Your task to perform on an android device: Open Youtube and go to the subscriptions tab Image 0: 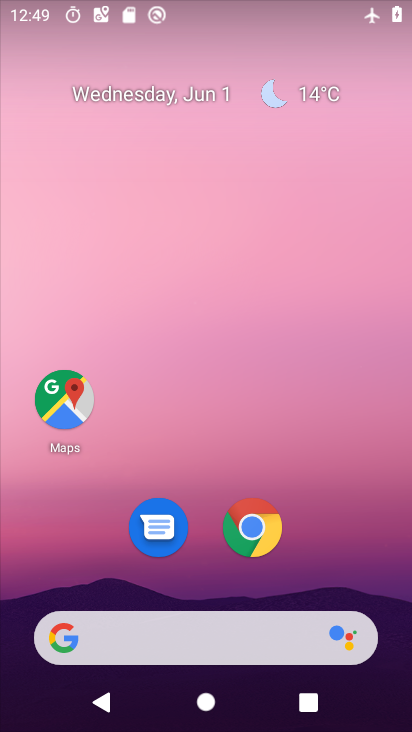
Step 0: drag from (333, 593) to (352, 7)
Your task to perform on an android device: Open Youtube and go to the subscriptions tab Image 1: 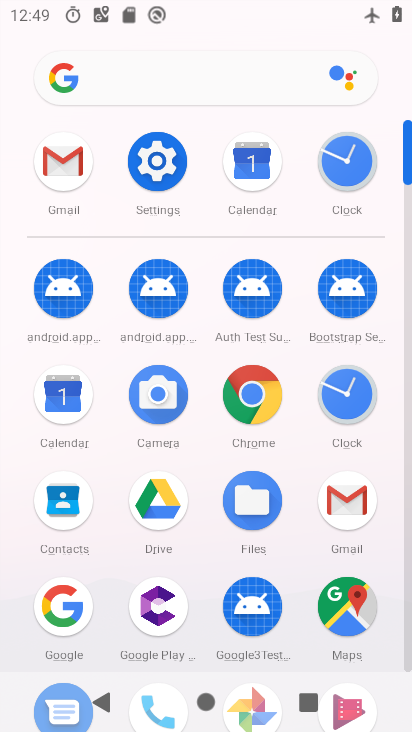
Step 1: click (410, 498)
Your task to perform on an android device: Open Youtube and go to the subscriptions tab Image 2: 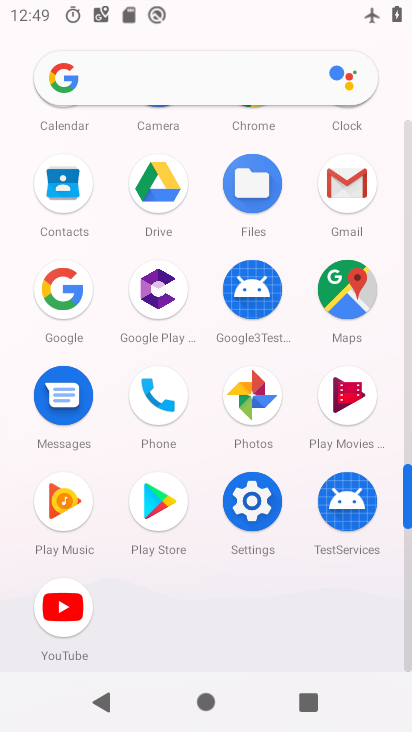
Step 2: click (41, 614)
Your task to perform on an android device: Open Youtube and go to the subscriptions tab Image 3: 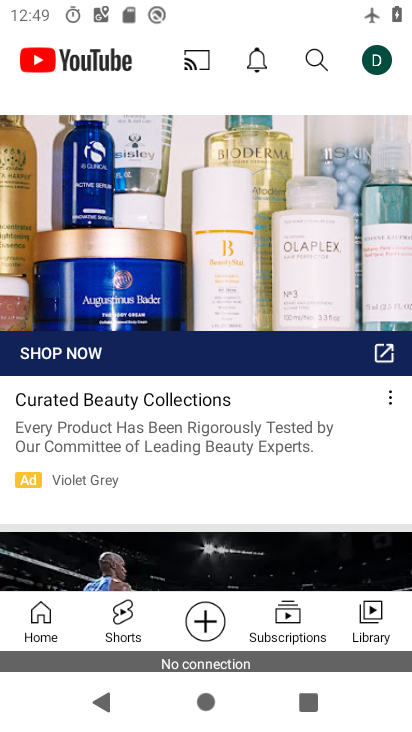
Step 3: click (266, 643)
Your task to perform on an android device: Open Youtube and go to the subscriptions tab Image 4: 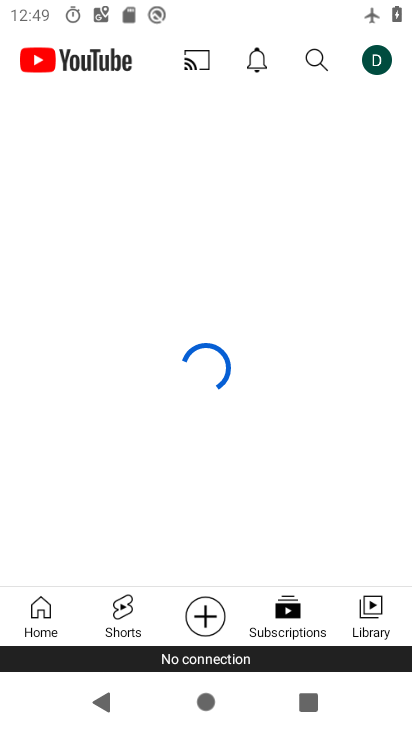
Step 4: task complete